Your task to perform on an android device: Show me productivity apps on the Play Store Image 0: 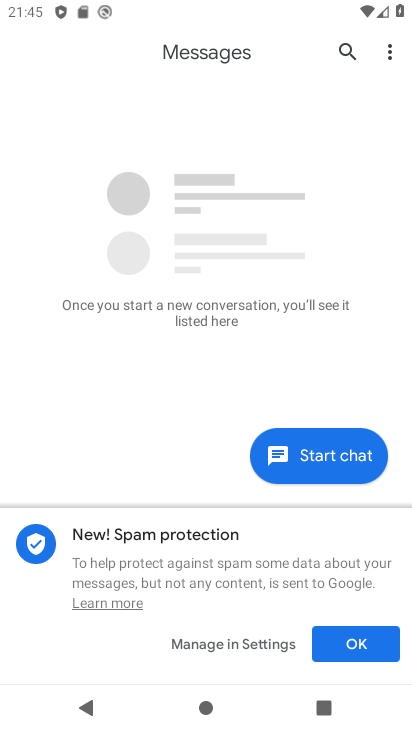
Step 0: press home button
Your task to perform on an android device: Show me productivity apps on the Play Store Image 1: 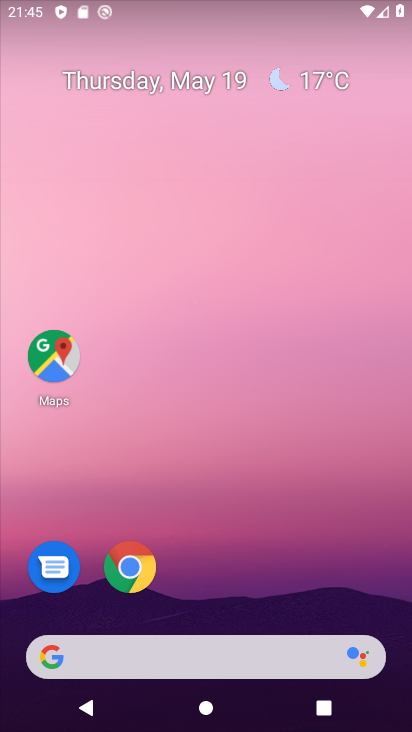
Step 1: drag from (228, 574) to (297, 11)
Your task to perform on an android device: Show me productivity apps on the Play Store Image 2: 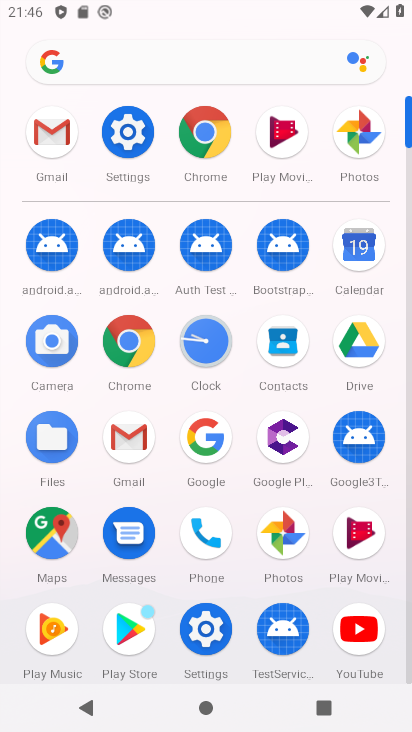
Step 2: click (125, 618)
Your task to perform on an android device: Show me productivity apps on the Play Store Image 3: 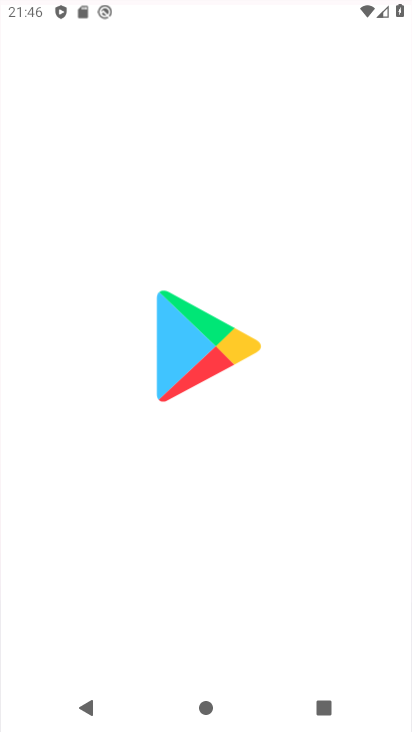
Step 3: click (125, 618)
Your task to perform on an android device: Show me productivity apps on the Play Store Image 4: 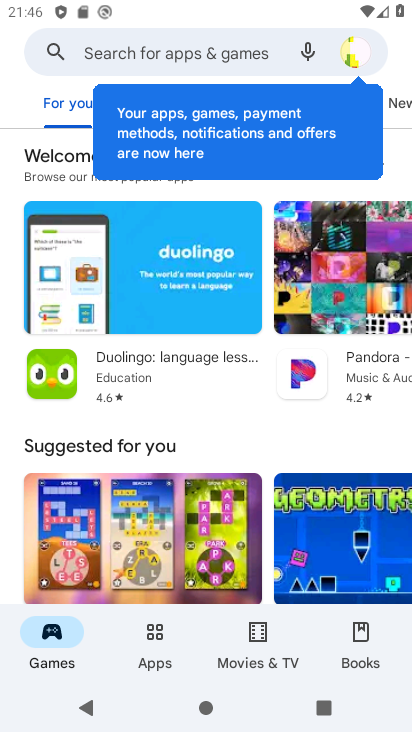
Step 4: click (166, 644)
Your task to perform on an android device: Show me productivity apps on the Play Store Image 5: 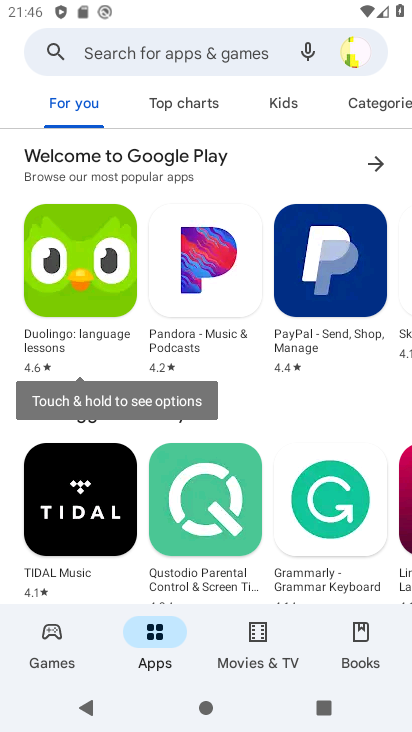
Step 5: click (203, 105)
Your task to perform on an android device: Show me productivity apps on the Play Store Image 6: 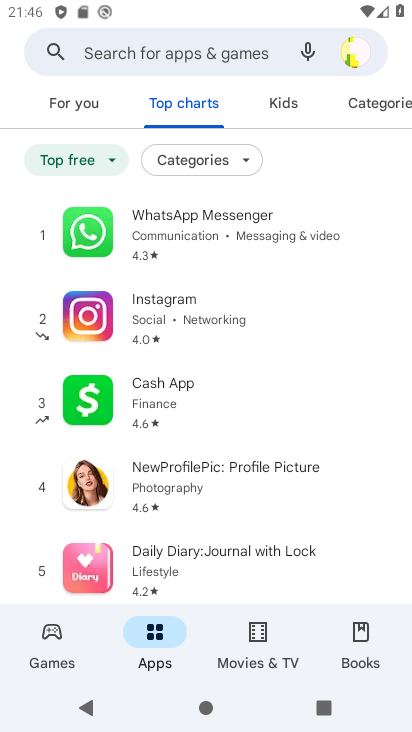
Step 6: click (363, 111)
Your task to perform on an android device: Show me productivity apps on the Play Store Image 7: 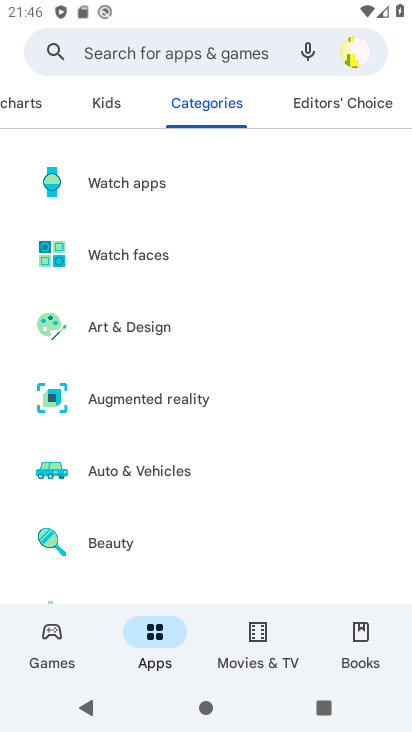
Step 7: drag from (327, 583) to (282, 238)
Your task to perform on an android device: Show me productivity apps on the Play Store Image 8: 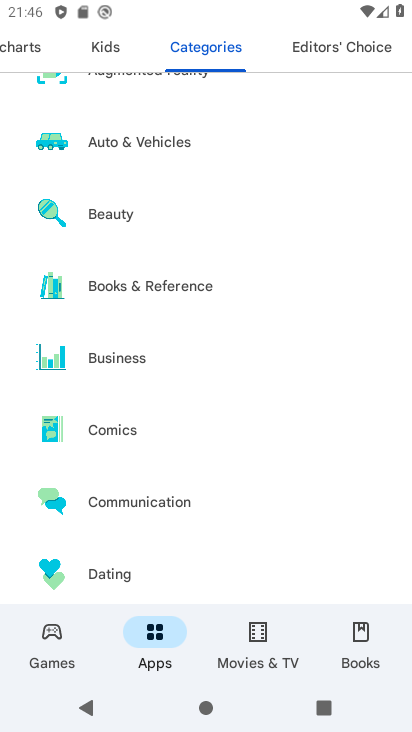
Step 8: drag from (342, 569) to (300, 200)
Your task to perform on an android device: Show me productivity apps on the Play Store Image 9: 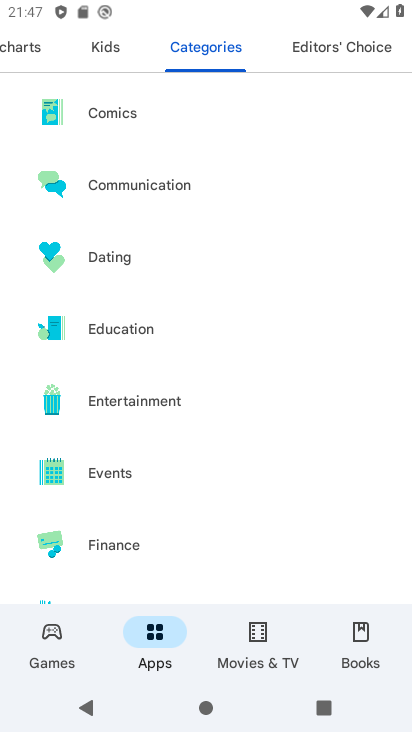
Step 9: drag from (341, 521) to (270, 226)
Your task to perform on an android device: Show me productivity apps on the Play Store Image 10: 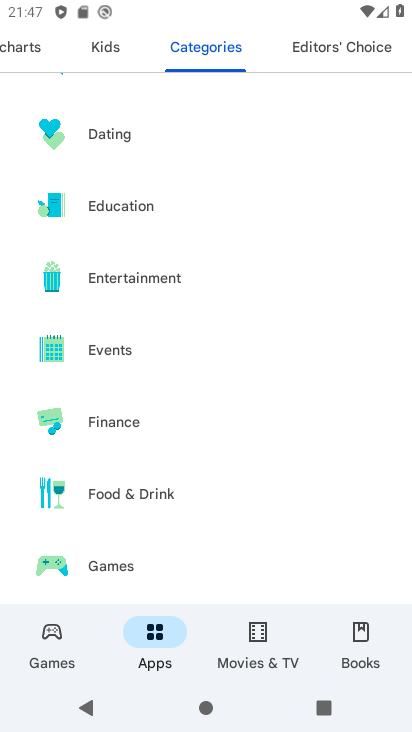
Step 10: drag from (241, 560) to (208, 106)
Your task to perform on an android device: Show me productivity apps on the Play Store Image 11: 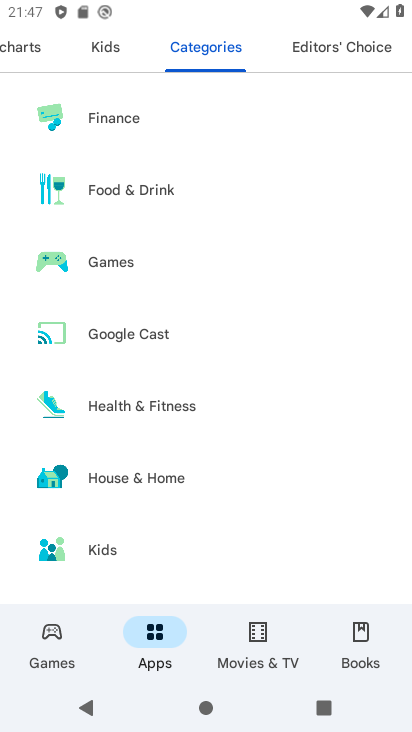
Step 11: drag from (273, 550) to (272, 109)
Your task to perform on an android device: Show me productivity apps on the Play Store Image 12: 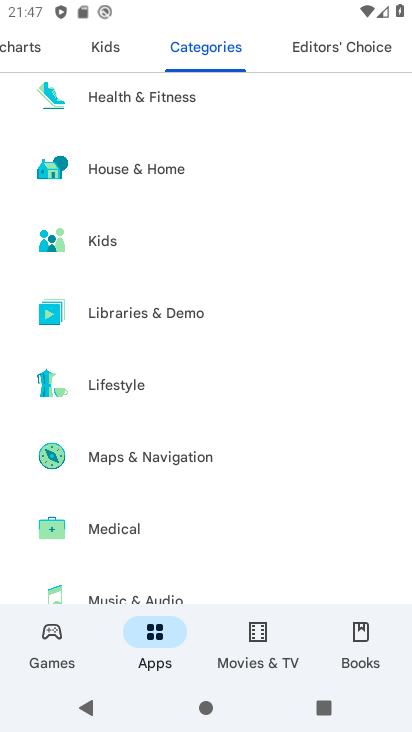
Step 12: drag from (301, 576) to (255, 258)
Your task to perform on an android device: Show me productivity apps on the Play Store Image 13: 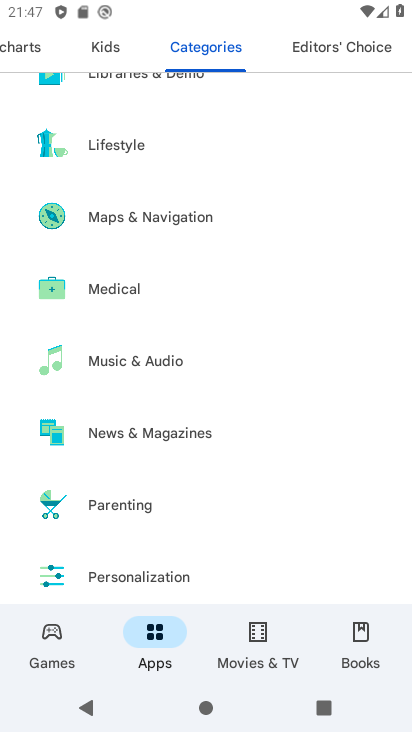
Step 13: drag from (269, 519) to (229, 170)
Your task to perform on an android device: Show me productivity apps on the Play Store Image 14: 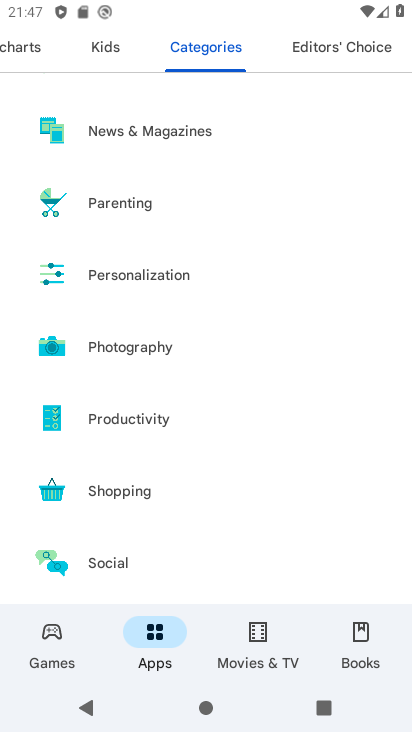
Step 14: click (246, 413)
Your task to perform on an android device: Show me productivity apps on the Play Store Image 15: 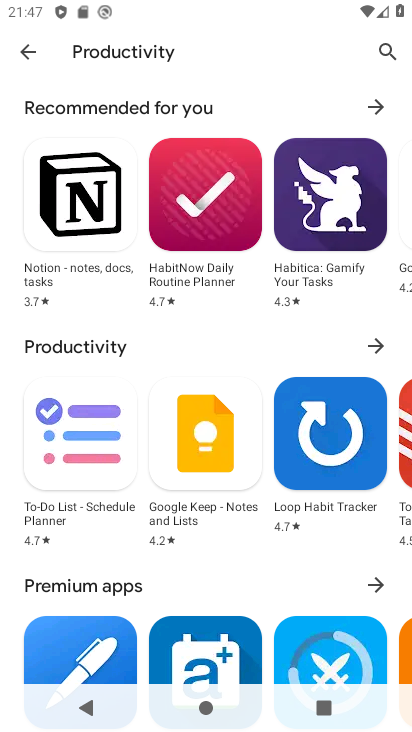
Step 15: task complete